Your task to perform on an android device: turn off sleep mode Image 0: 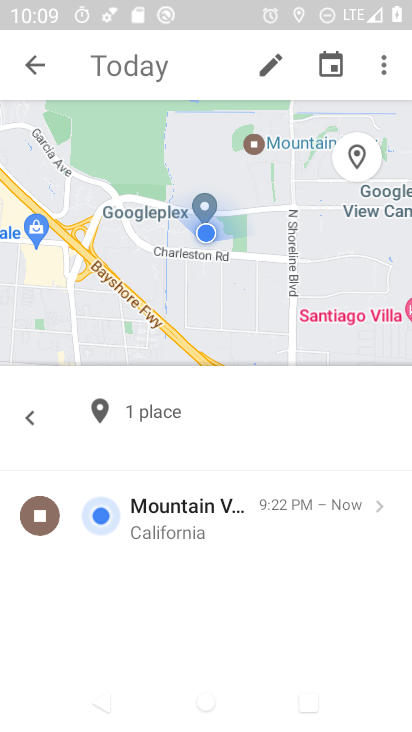
Step 0: press home button
Your task to perform on an android device: turn off sleep mode Image 1: 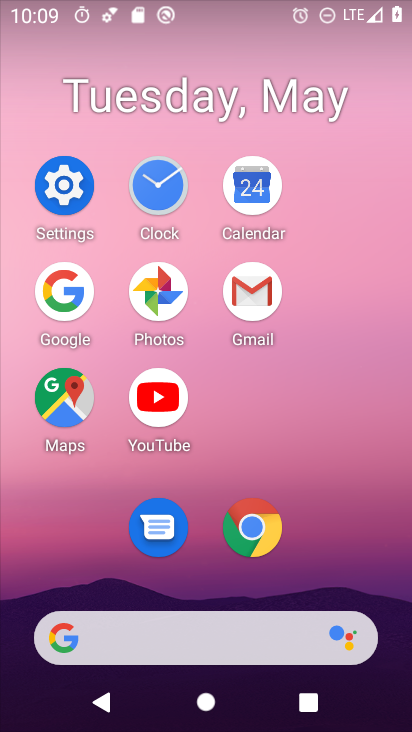
Step 1: click (52, 191)
Your task to perform on an android device: turn off sleep mode Image 2: 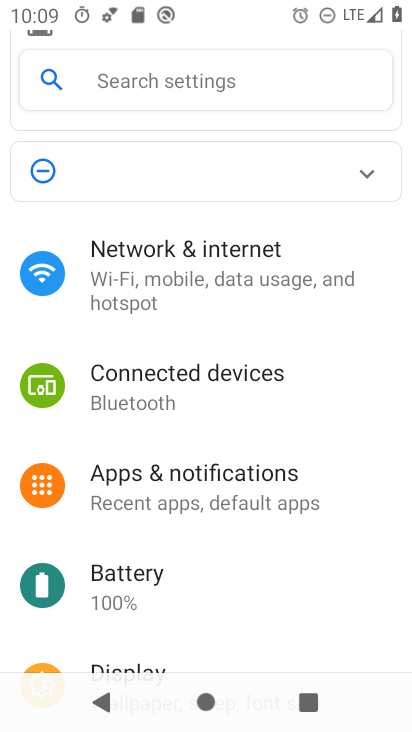
Step 2: drag from (277, 557) to (305, 130)
Your task to perform on an android device: turn off sleep mode Image 3: 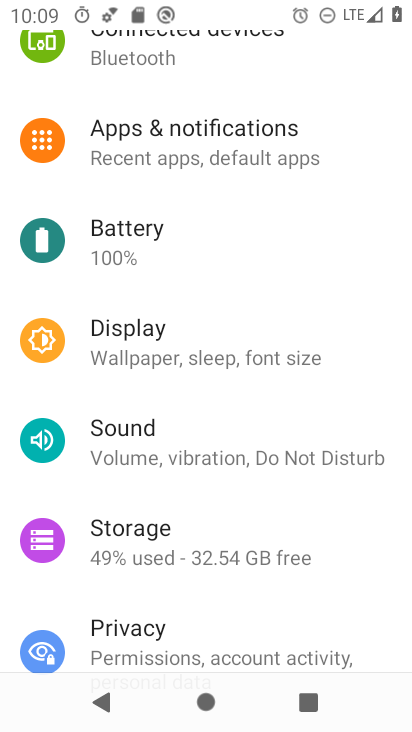
Step 3: drag from (238, 447) to (290, 164)
Your task to perform on an android device: turn off sleep mode Image 4: 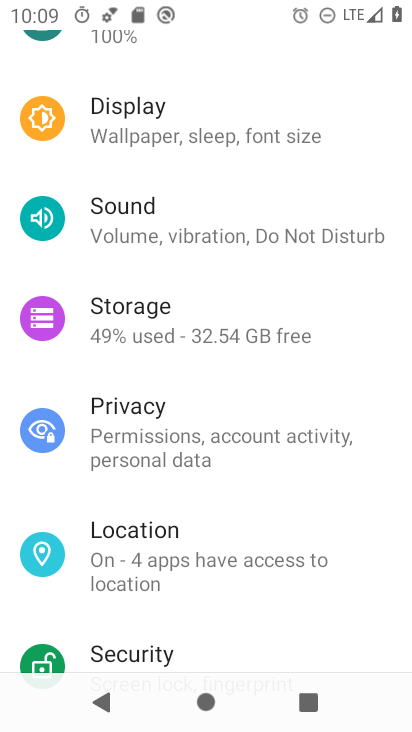
Step 4: click (265, 138)
Your task to perform on an android device: turn off sleep mode Image 5: 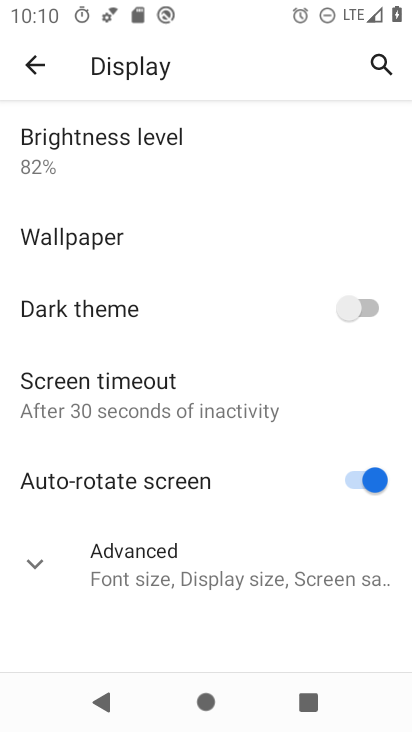
Step 5: click (308, 361)
Your task to perform on an android device: turn off sleep mode Image 6: 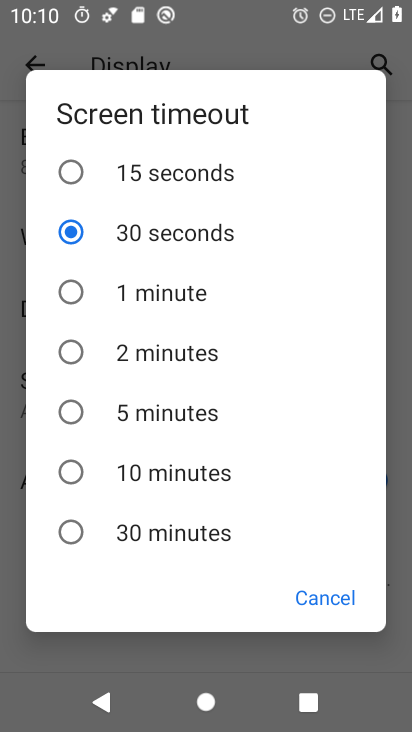
Step 6: task complete